Your task to perform on an android device: Open eBay Image 0: 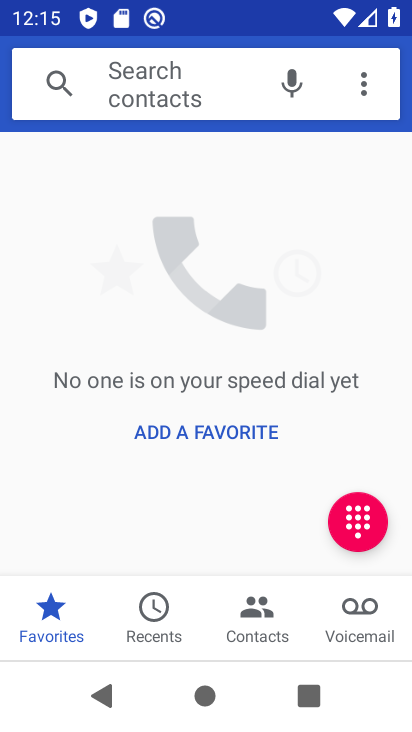
Step 0: press back button
Your task to perform on an android device: Open eBay Image 1: 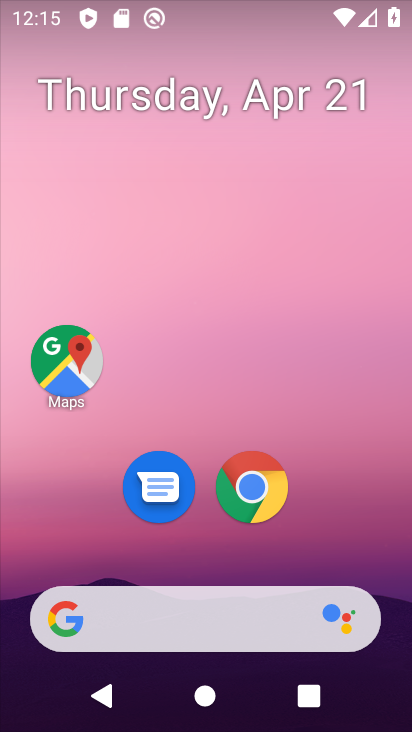
Step 1: click (261, 490)
Your task to perform on an android device: Open eBay Image 2: 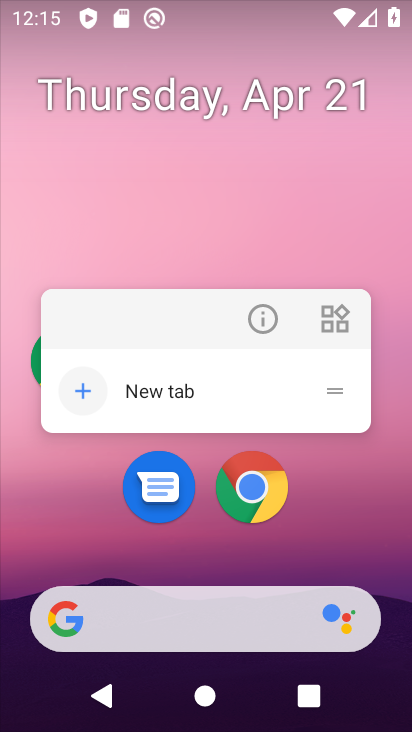
Step 2: click (259, 499)
Your task to perform on an android device: Open eBay Image 3: 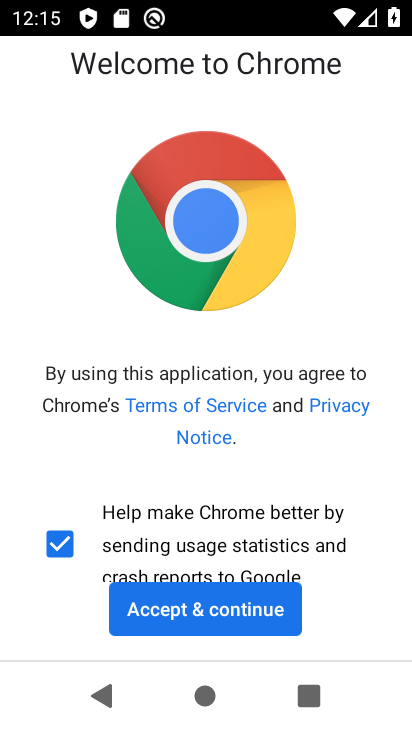
Step 3: click (250, 628)
Your task to perform on an android device: Open eBay Image 4: 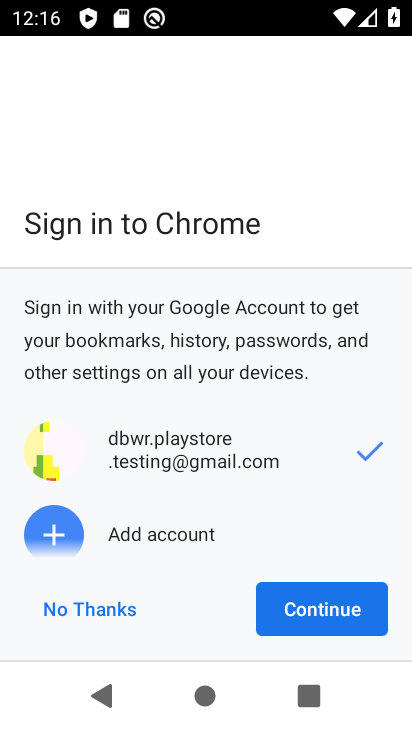
Step 4: click (338, 616)
Your task to perform on an android device: Open eBay Image 5: 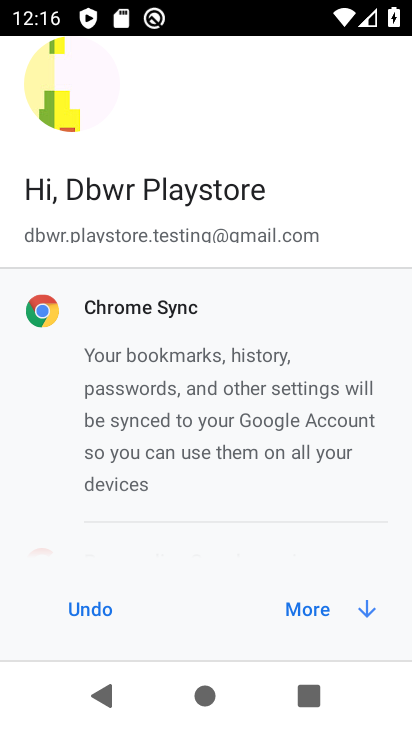
Step 5: click (335, 610)
Your task to perform on an android device: Open eBay Image 6: 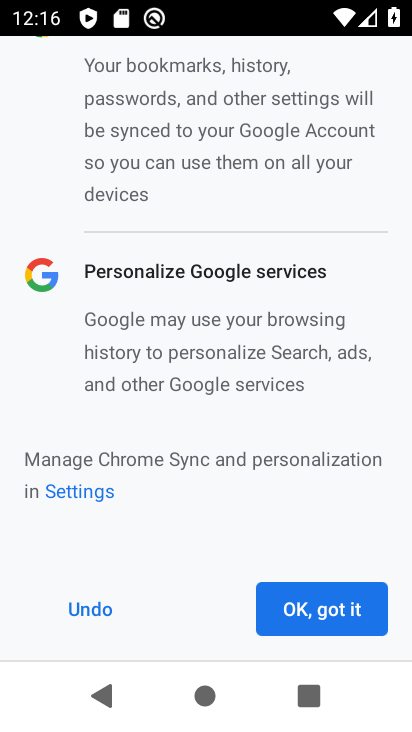
Step 6: click (333, 611)
Your task to perform on an android device: Open eBay Image 7: 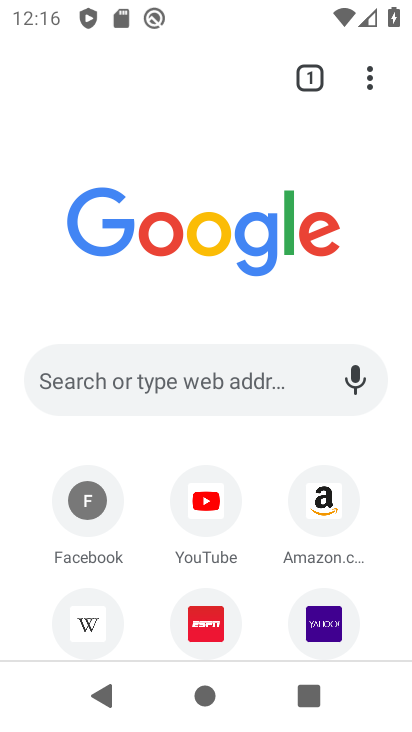
Step 7: drag from (293, 583) to (355, 290)
Your task to perform on an android device: Open eBay Image 8: 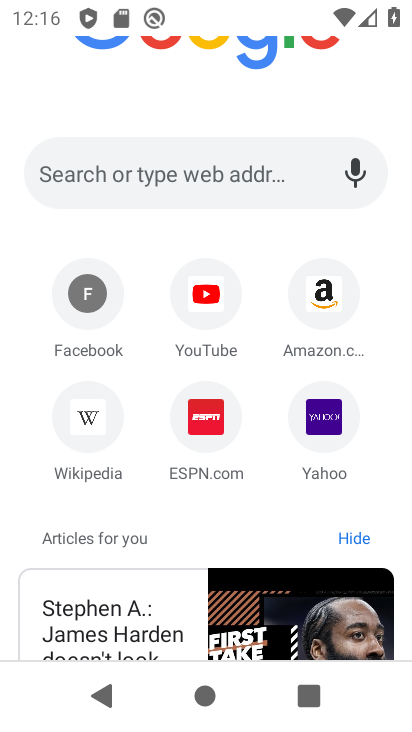
Step 8: click (227, 170)
Your task to perform on an android device: Open eBay Image 9: 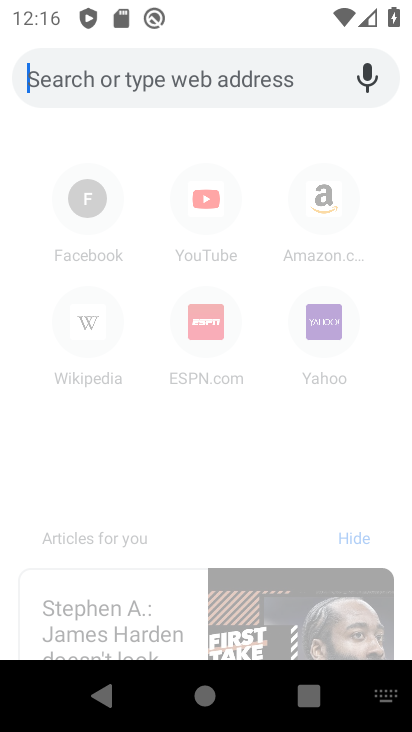
Step 9: type "ebay.com"
Your task to perform on an android device: Open eBay Image 10: 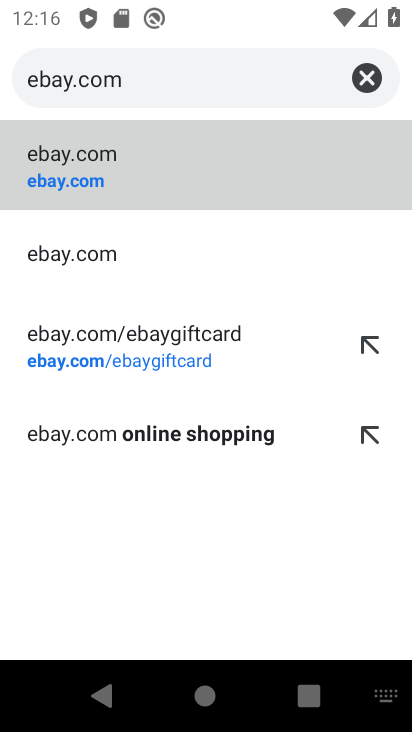
Step 10: click (219, 182)
Your task to perform on an android device: Open eBay Image 11: 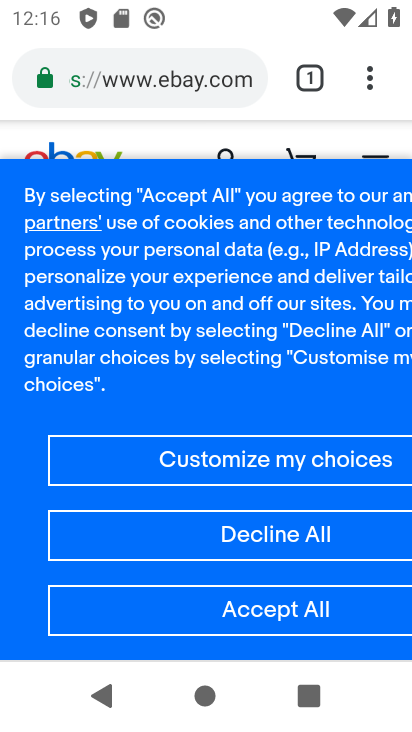
Step 11: click (289, 615)
Your task to perform on an android device: Open eBay Image 12: 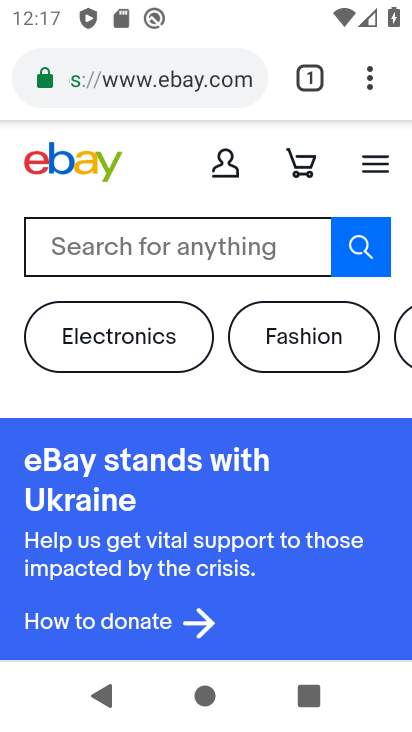
Step 12: task complete